Your task to perform on an android device: turn off wifi Image 0: 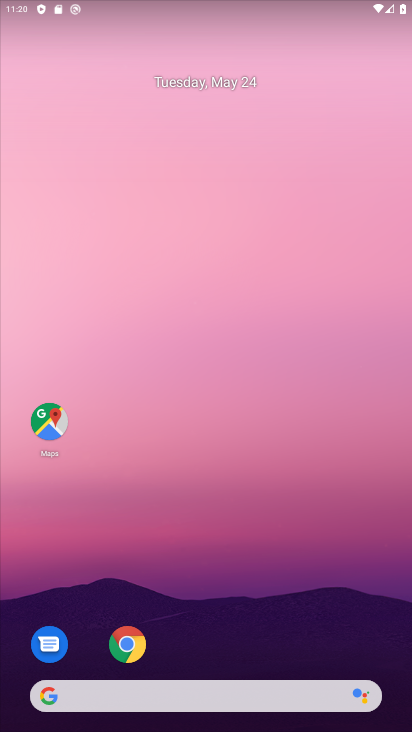
Step 0: drag from (208, 617) to (225, 189)
Your task to perform on an android device: turn off wifi Image 1: 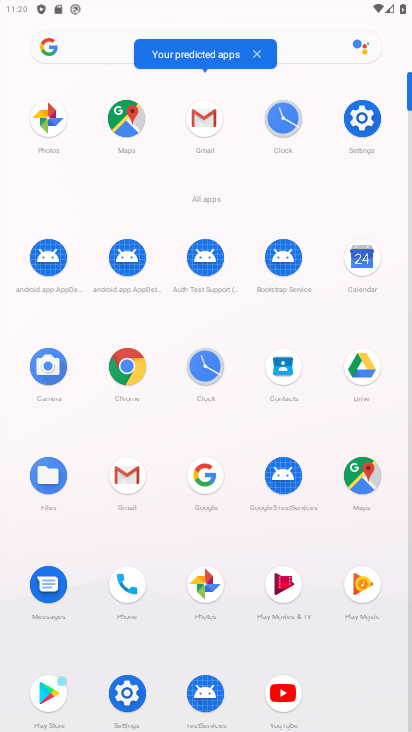
Step 1: click (362, 116)
Your task to perform on an android device: turn off wifi Image 2: 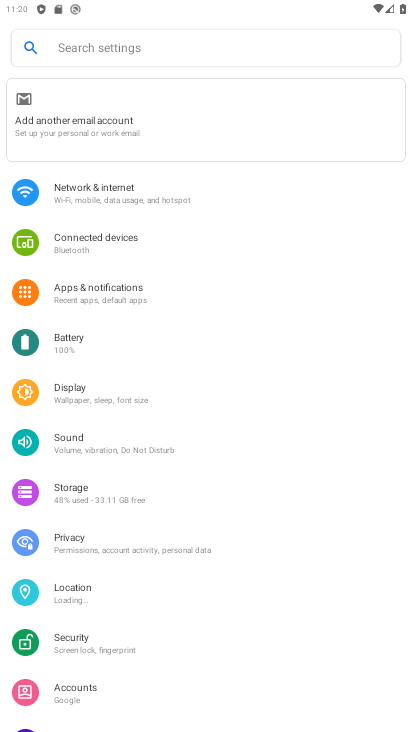
Step 2: click (87, 190)
Your task to perform on an android device: turn off wifi Image 3: 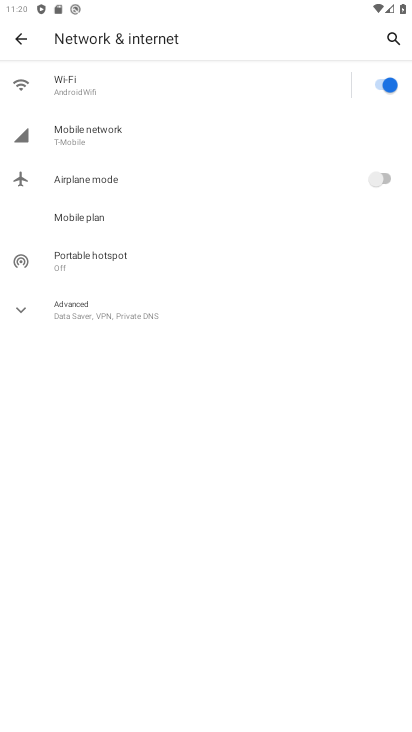
Step 3: click (376, 89)
Your task to perform on an android device: turn off wifi Image 4: 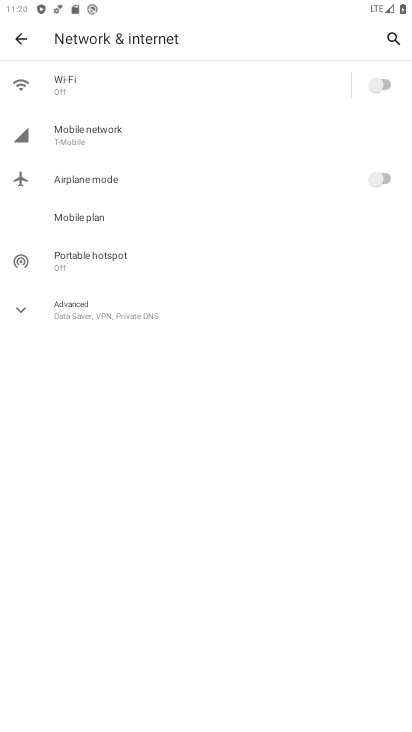
Step 4: task complete